Your task to perform on an android device: turn on javascript in the chrome app Image 0: 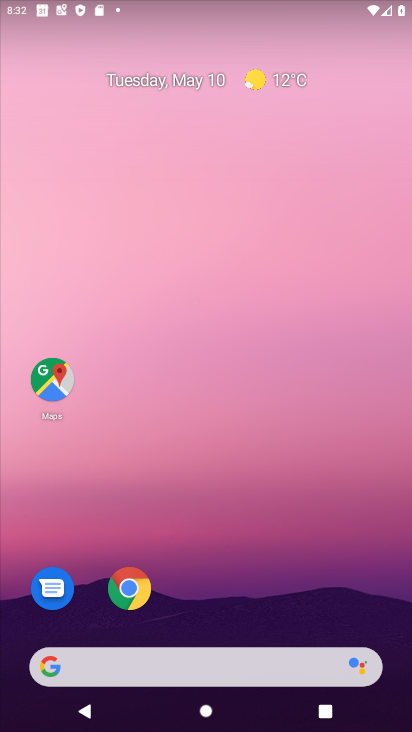
Step 0: click (125, 596)
Your task to perform on an android device: turn on javascript in the chrome app Image 1: 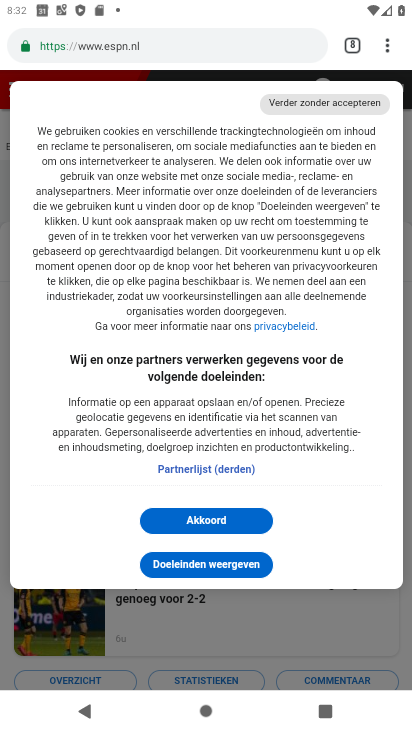
Step 1: click (376, 45)
Your task to perform on an android device: turn on javascript in the chrome app Image 2: 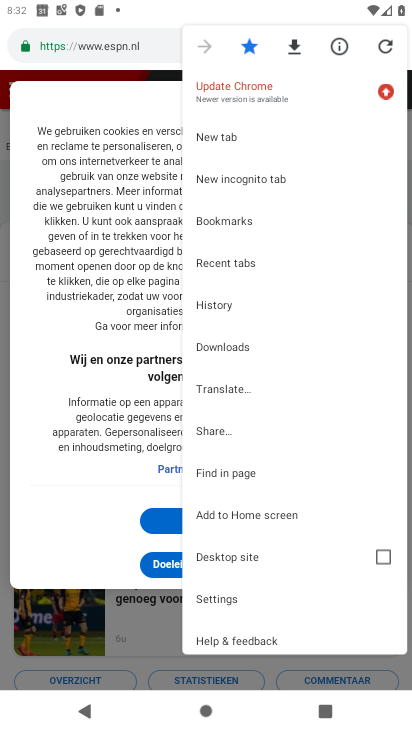
Step 2: click (258, 603)
Your task to perform on an android device: turn on javascript in the chrome app Image 3: 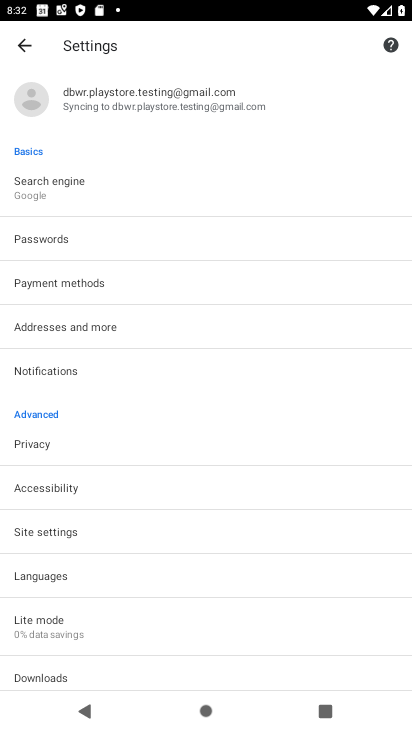
Step 3: click (103, 529)
Your task to perform on an android device: turn on javascript in the chrome app Image 4: 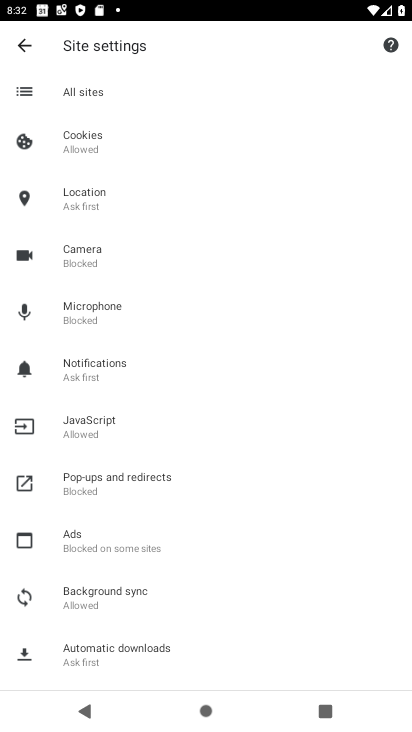
Step 4: click (135, 433)
Your task to perform on an android device: turn on javascript in the chrome app Image 5: 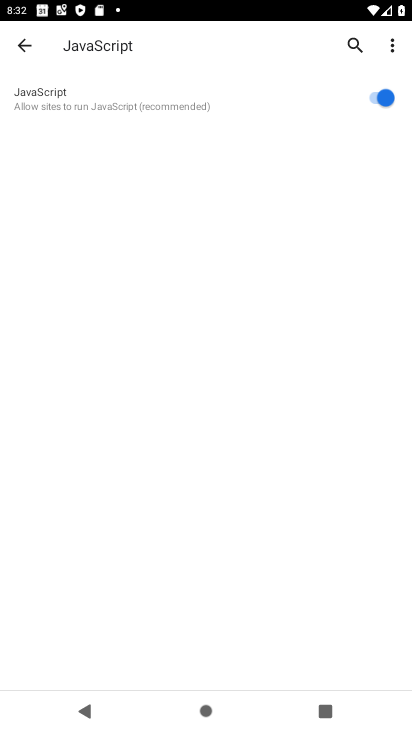
Step 5: task complete